Your task to perform on an android device: Clear the shopping cart on walmart.com. Add "razer thresher" to the cart on walmart.com, then select checkout. Image 0: 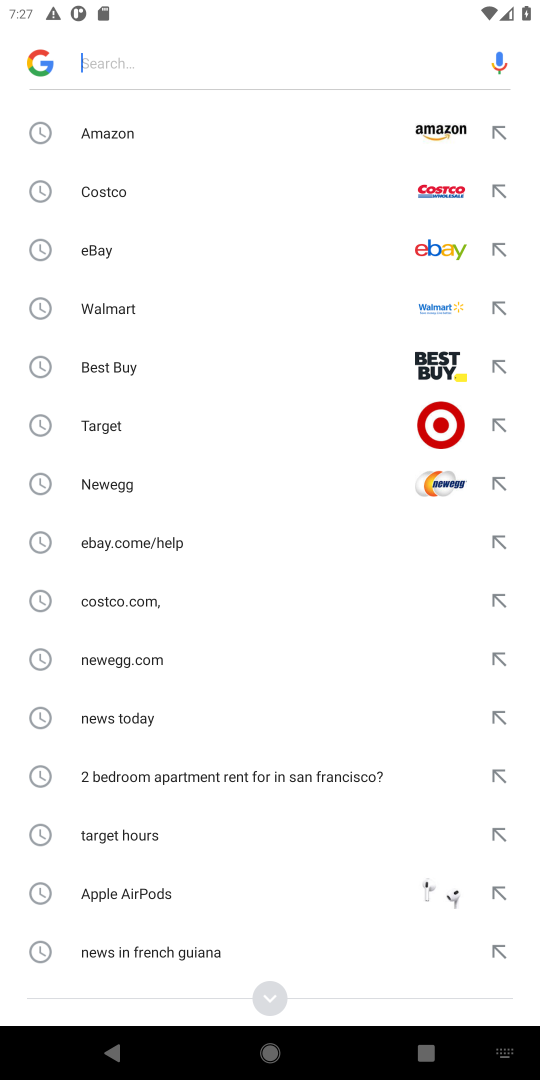
Step 0: type "walmart.com"
Your task to perform on an android device: Clear the shopping cart on walmart.com. Add "razer thresher" to the cart on walmart.com, then select checkout. Image 1: 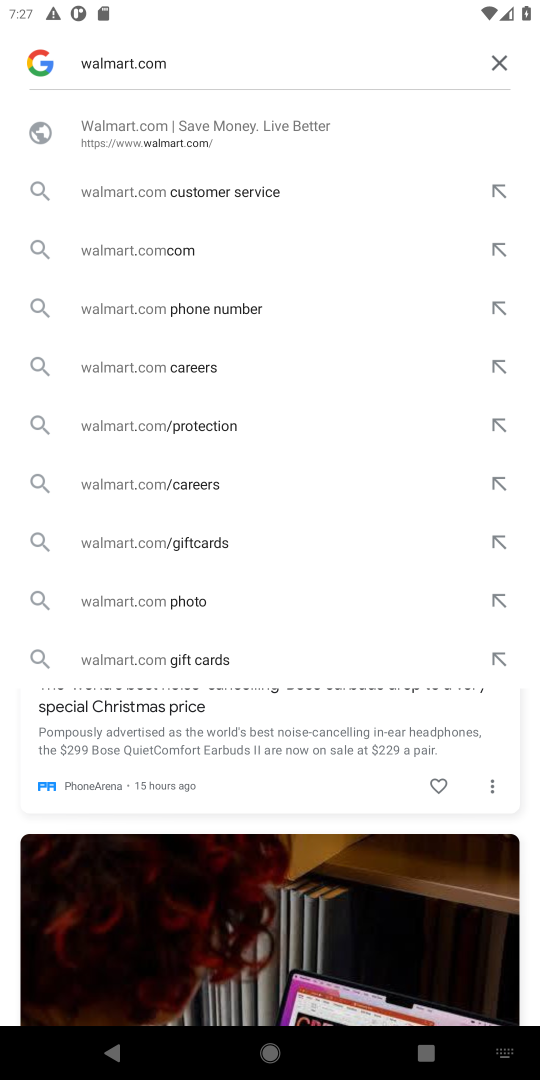
Step 1: click (145, 124)
Your task to perform on an android device: Clear the shopping cart on walmart.com. Add "razer thresher" to the cart on walmart.com, then select checkout. Image 2: 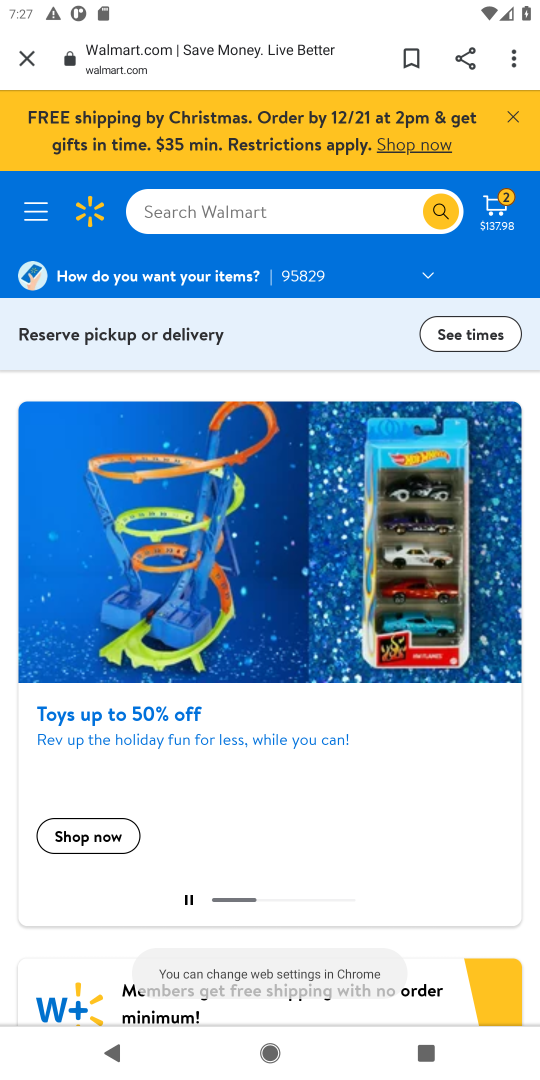
Step 2: click (505, 215)
Your task to perform on an android device: Clear the shopping cart on walmart.com. Add "razer thresher" to the cart on walmart.com, then select checkout. Image 3: 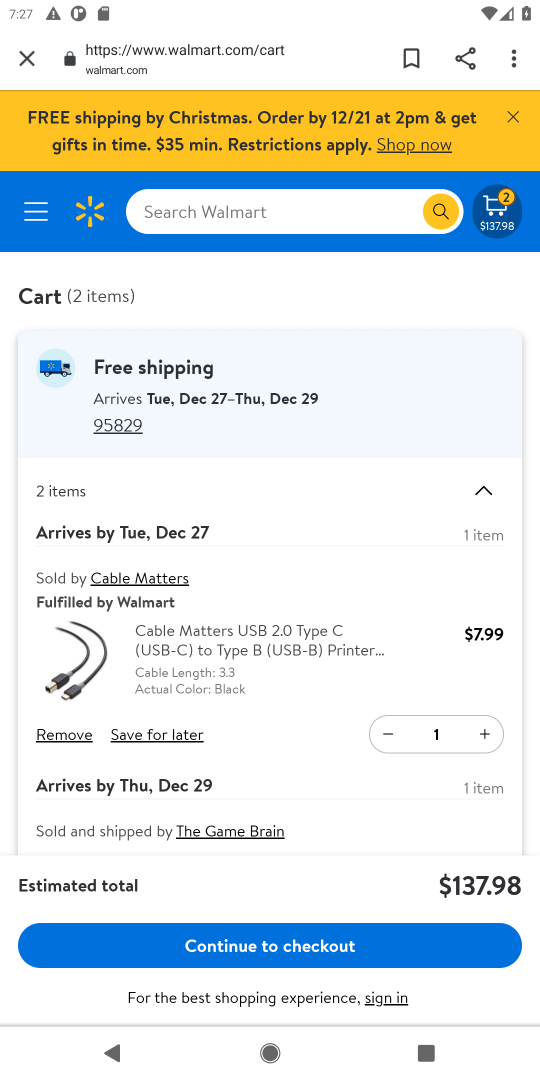
Step 3: click (57, 736)
Your task to perform on an android device: Clear the shopping cart on walmart.com. Add "razer thresher" to the cart on walmart.com, then select checkout. Image 4: 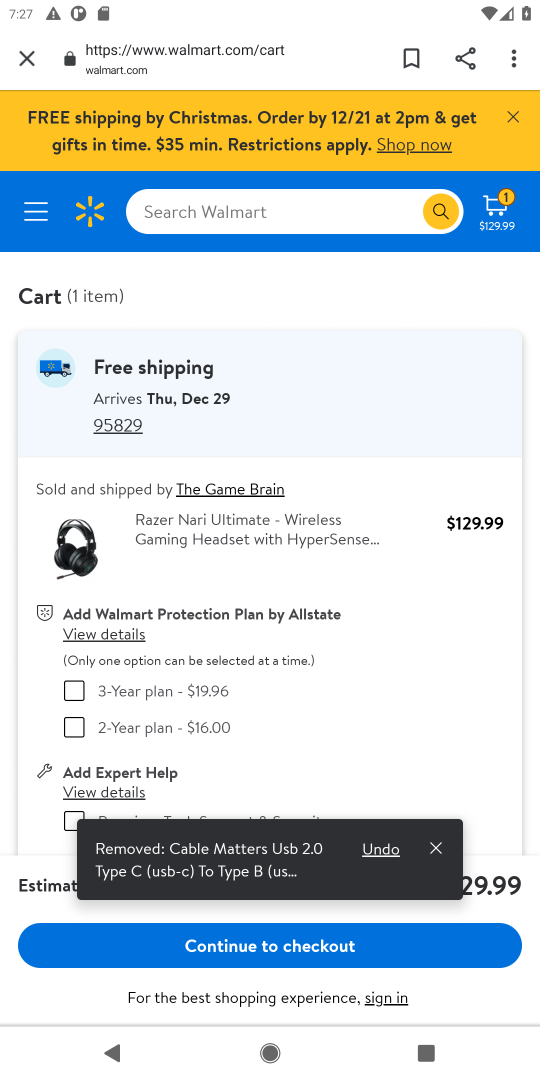
Step 4: drag from (170, 714) to (163, 460)
Your task to perform on an android device: Clear the shopping cart on walmart.com. Add "razer thresher" to the cart on walmart.com, then select checkout. Image 5: 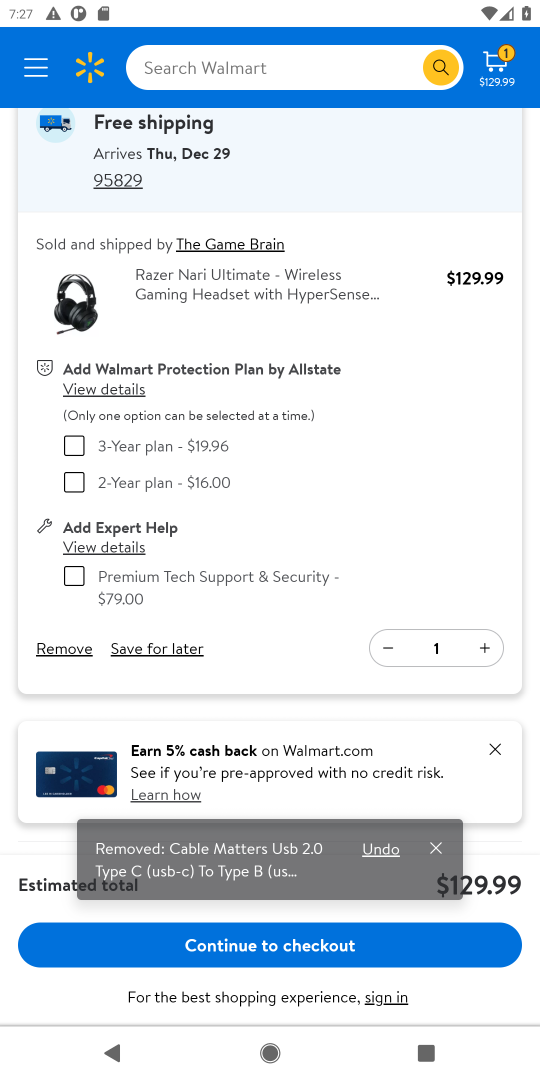
Step 5: click (67, 645)
Your task to perform on an android device: Clear the shopping cart on walmart.com. Add "razer thresher" to the cart on walmart.com, then select checkout. Image 6: 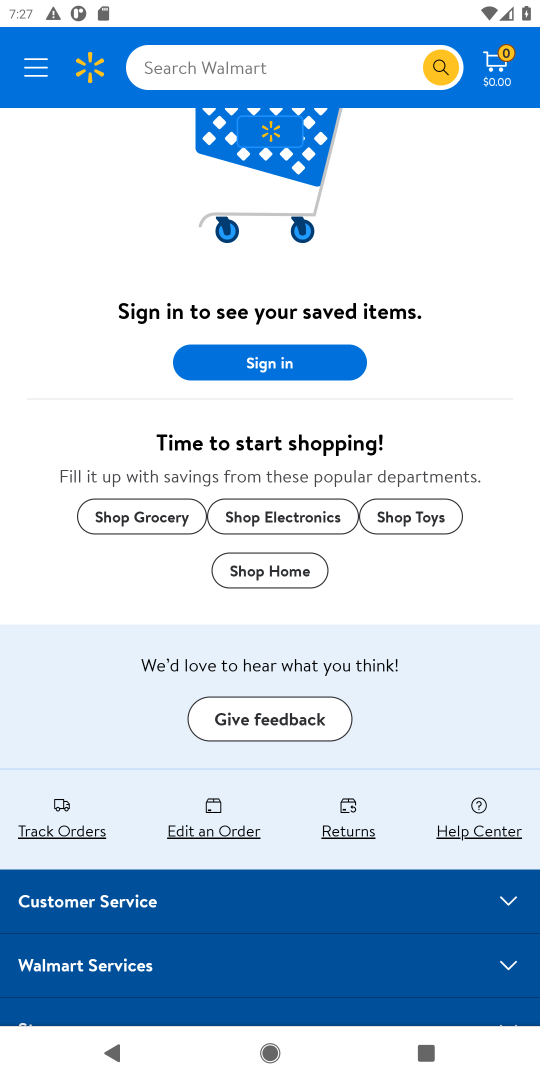
Step 6: click (306, 83)
Your task to perform on an android device: Clear the shopping cart on walmart.com. Add "razer thresher" to the cart on walmart.com, then select checkout. Image 7: 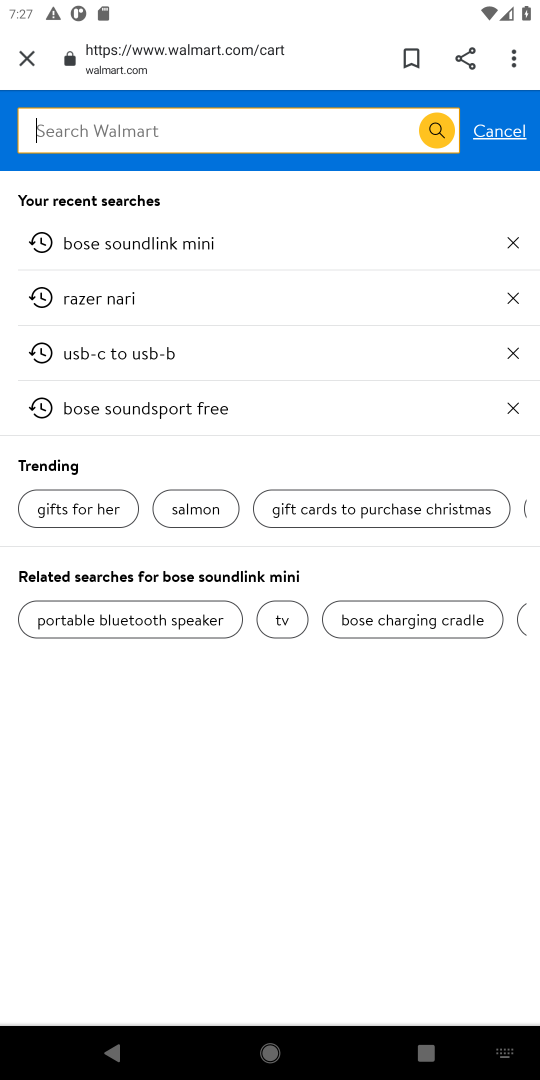
Step 7: type "razer thresher"
Your task to perform on an android device: Clear the shopping cart on walmart.com. Add "razer thresher" to the cart on walmart.com, then select checkout. Image 8: 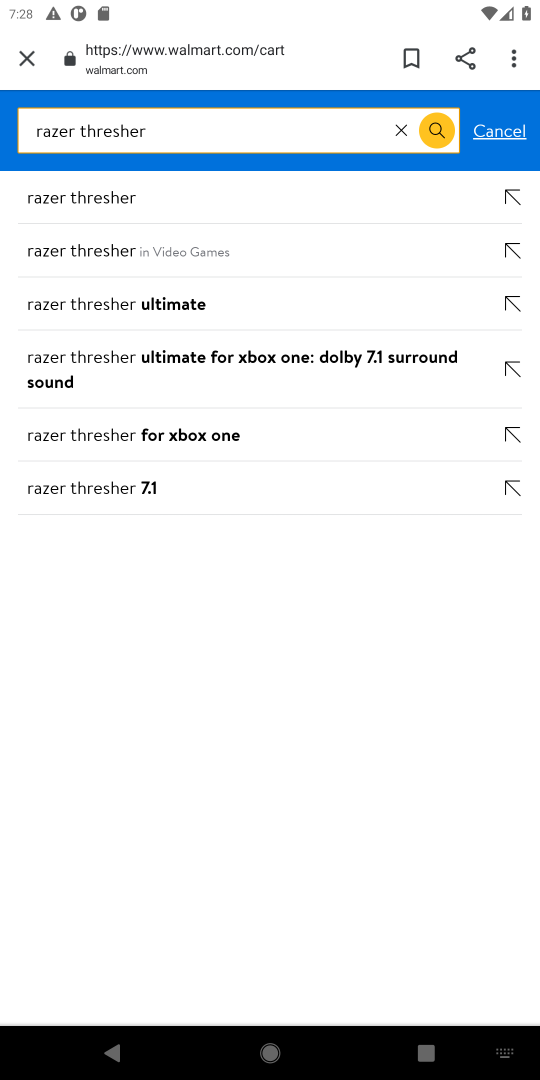
Step 8: click (90, 199)
Your task to perform on an android device: Clear the shopping cart on walmart.com. Add "razer thresher" to the cart on walmart.com, then select checkout. Image 9: 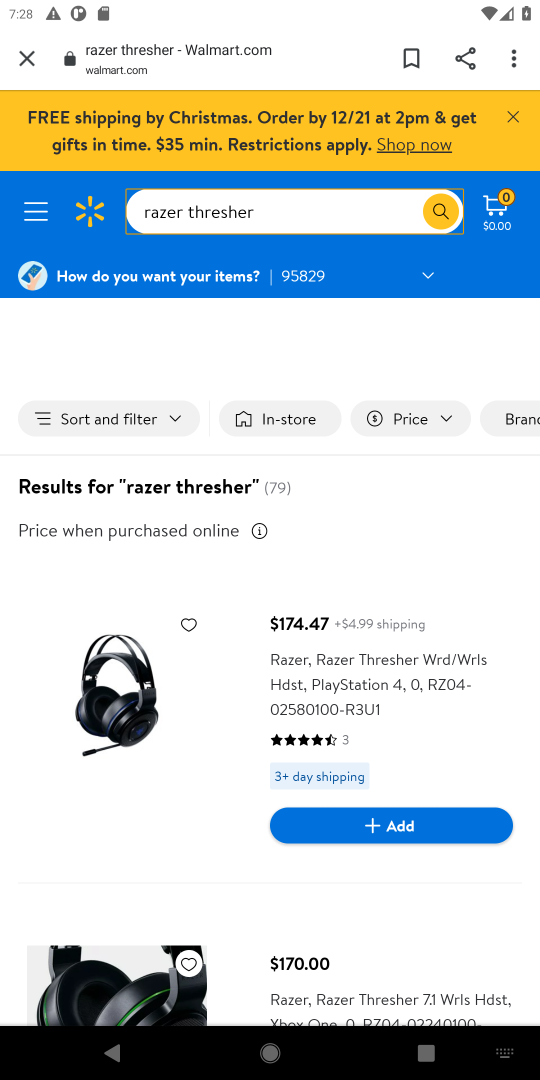
Step 9: click (396, 830)
Your task to perform on an android device: Clear the shopping cart on walmart.com. Add "razer thresher" to the cart on walmart.com, then select checkout. Image 10: 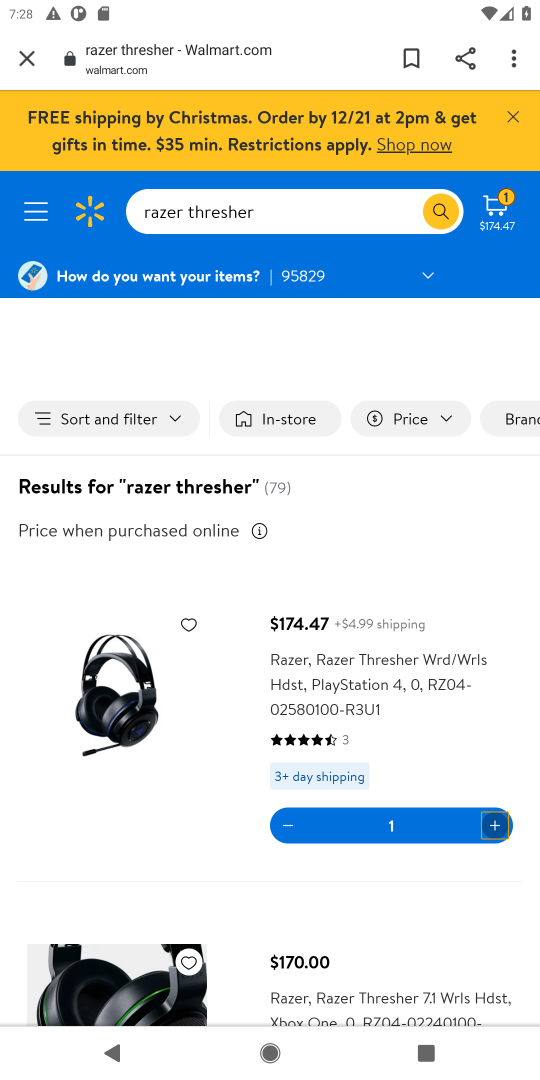
Step 10: click (497, 219)
Your task to perform on an android device: Clear the shopping cart on walmart.com. Add "razer thresher" to the cart on walmart.com, then select checkout. Image 11: 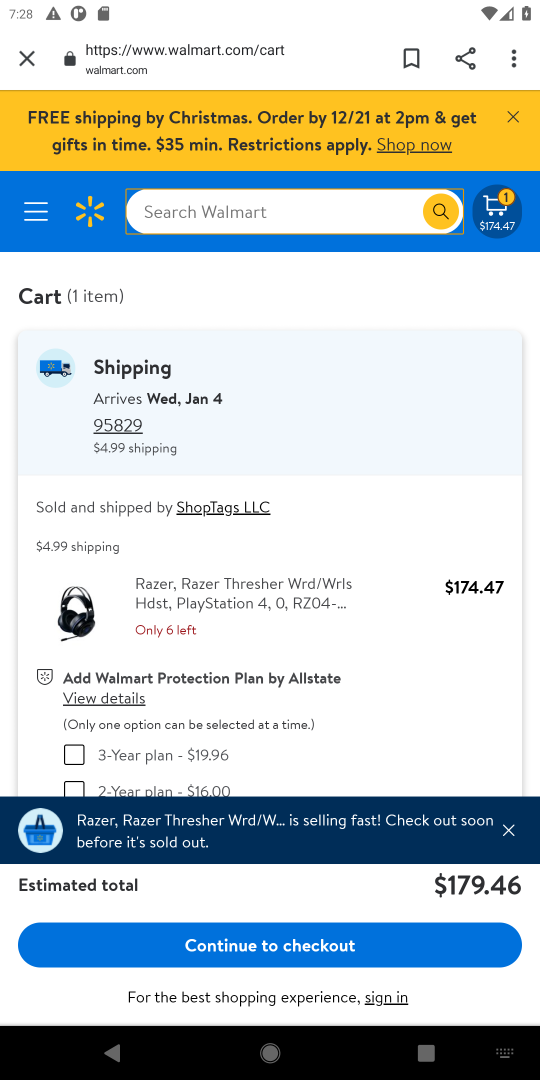
Step 11: click (235, 947)
Your task to perform on an android device: Clear the shopping cart on walmart.com. Add "razer thresher" to the cart on walmart.com, then select checkout. Image 12: 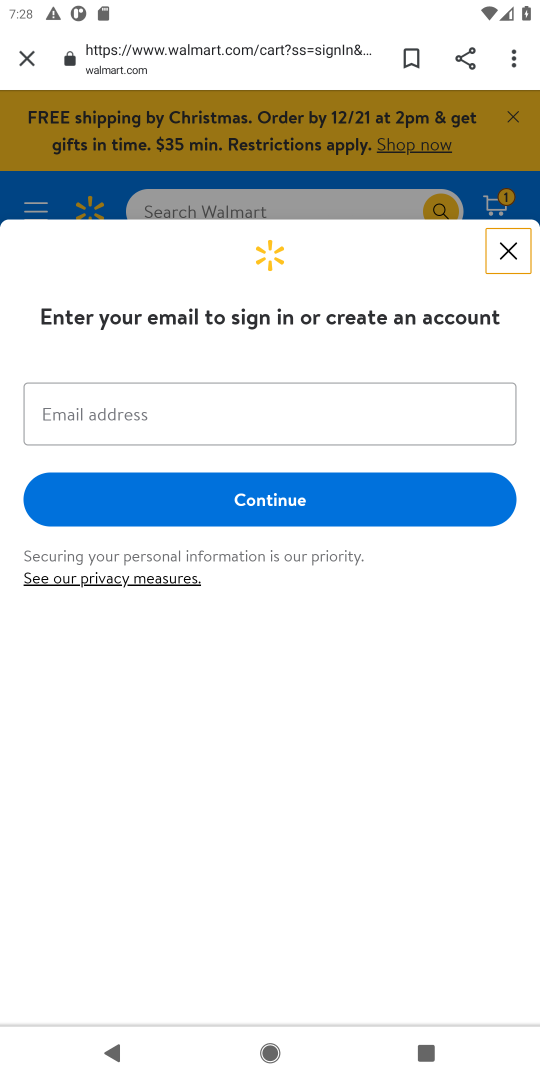
Step 12: task complete